Your task to perform on an android device: turn off sleep mode Image 0: 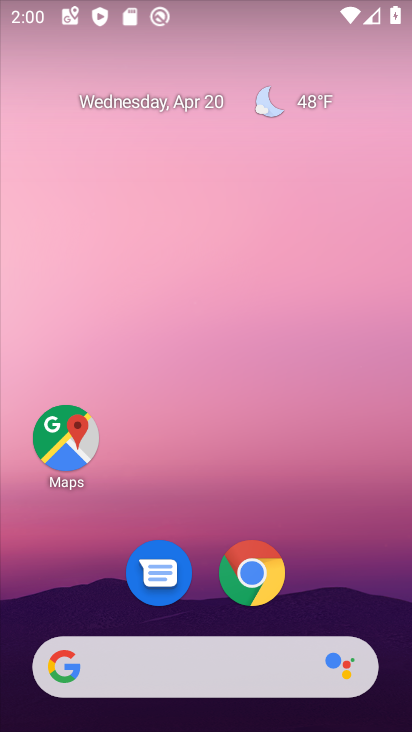
Step 0: press home button
Your task to perform on an android device: turn off sleep mode Image 1: 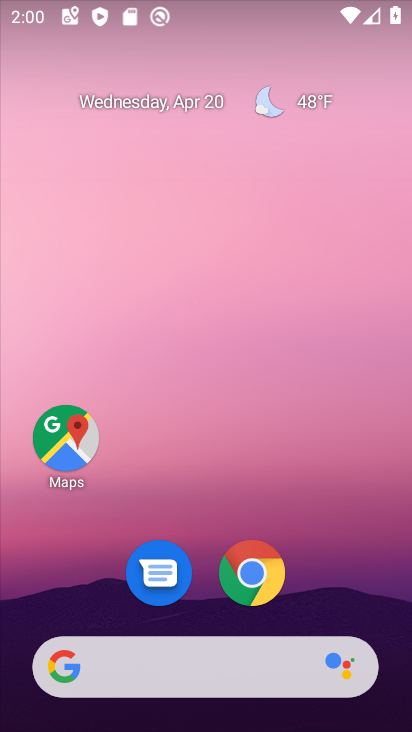
Step 1: drag from (185, 669) to (369, 21)
Your task to perform on an android device: turn off sleep mode Image 2: 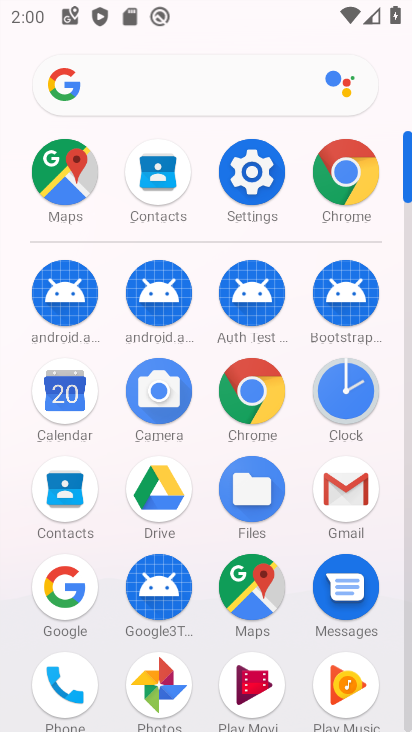
Step 2: click (260, 169)
Your task to perform on an android device: turn off sleep mode Image 3: 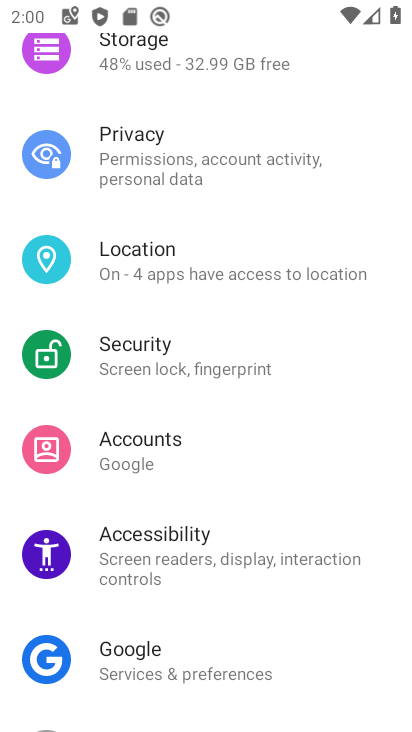
Step 3: drag from (263, 418) to (321, 127)
Your task to perform on an android device: turn off sleep mode Image 4: 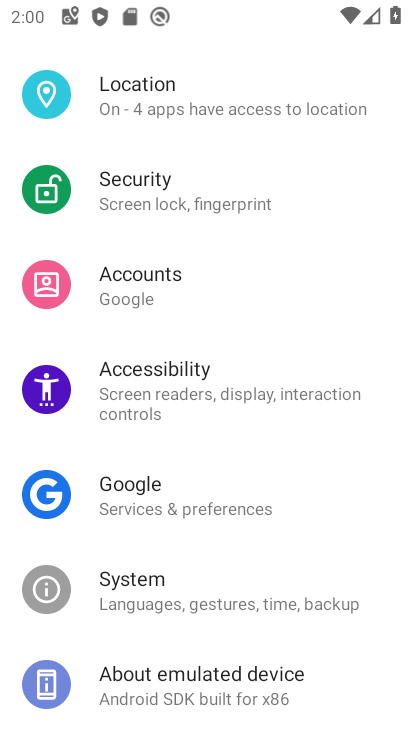
Step 4: drag from (292, 128) to (261, 457)
Your task to perform on an android device: turn off sleep mode Image 5: 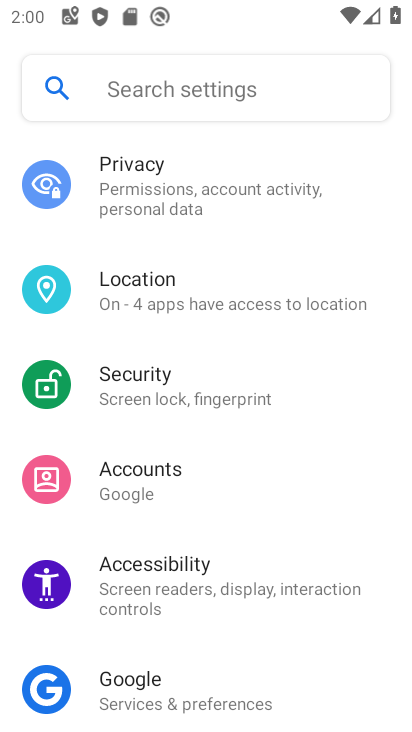
Step 5: drag from (292, 222) to (255, 583)
Your task to perform on an android device: turn off sleep mode Image 6: 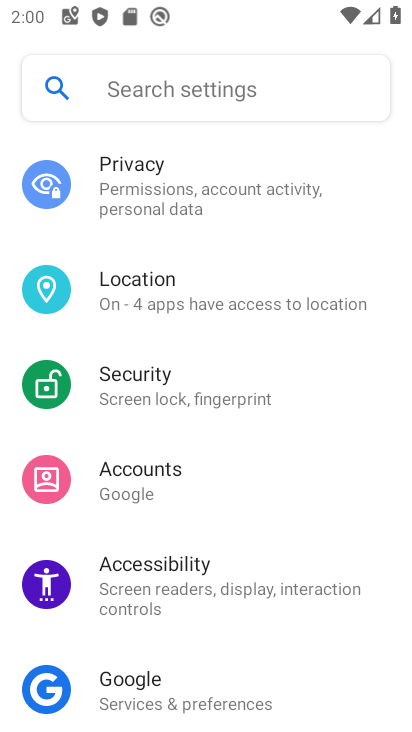
Step 6: drag from (302, 217) to (280, 612)
Your task to perform on an android device: turn off sleep mode Image 7: 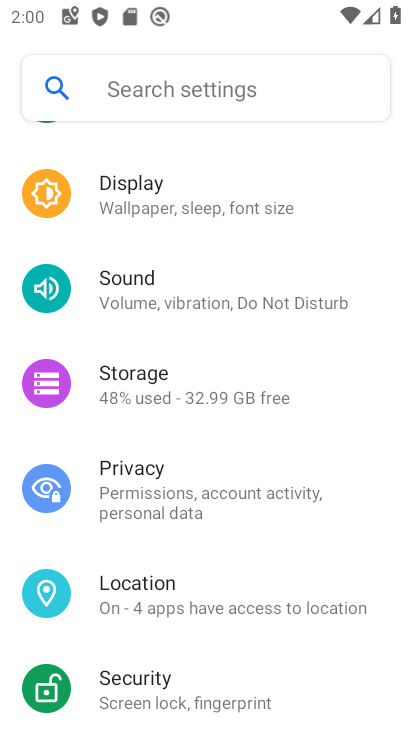
Step 7: click (222, 199)
Your task to perform on an android device: turn off sleep mode Image 8: 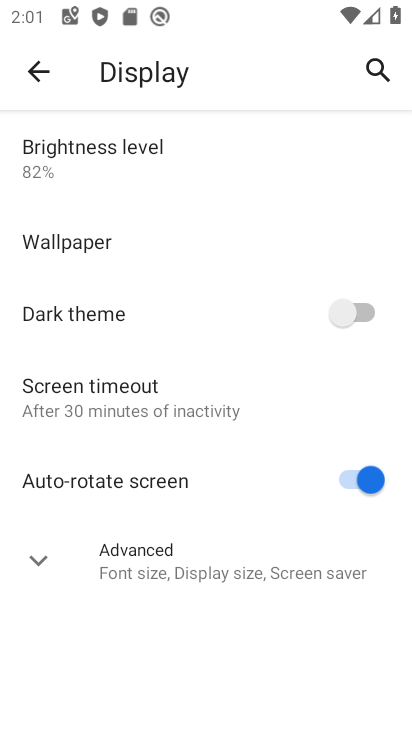
Step 8: task complete